Your task to perform on an android device: Go to Yahoo.com Image 0: 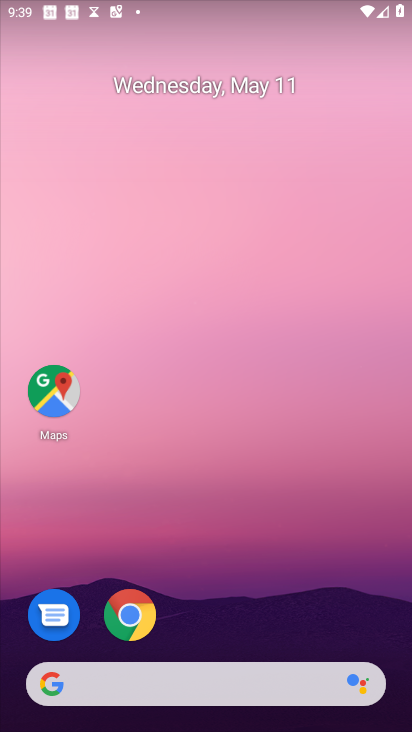
Step 0: click (125, 610)
Your task to perform on an android device: Go to Yahoo.com Image 1: 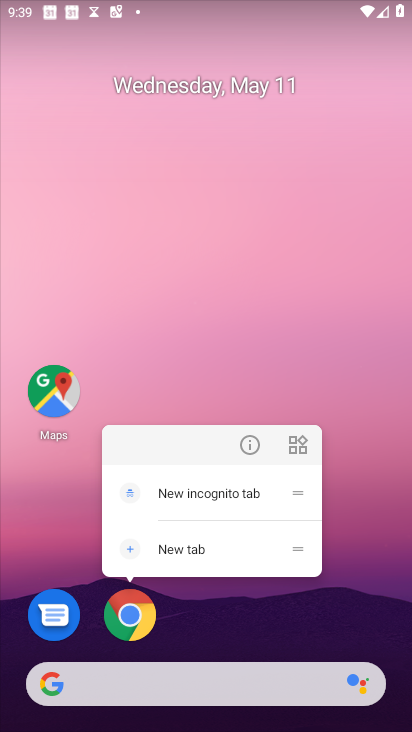
Step 1: click (123, 609)
Your task to perform on an android device: Go to Yahoo.com Image 2: 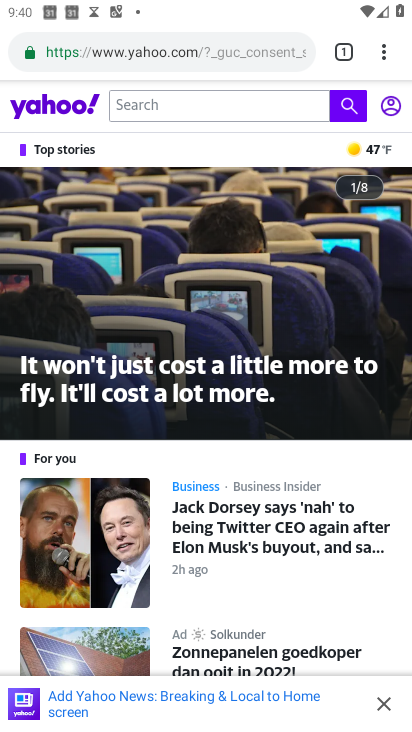
Step 2: task complete